Your task to perform on an android device: turn on showing notifications on the lock screen Image 0: 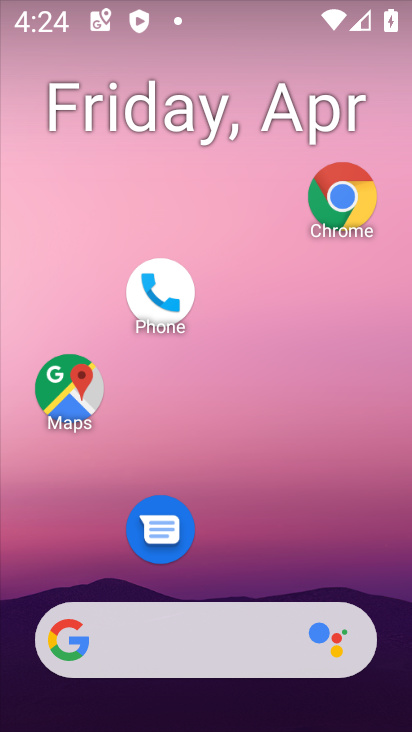
Step 0: drag from (249, 583) to (258, 67)
Your task to perform on an android device: turn on showing notifications on the lock screen Image 1: 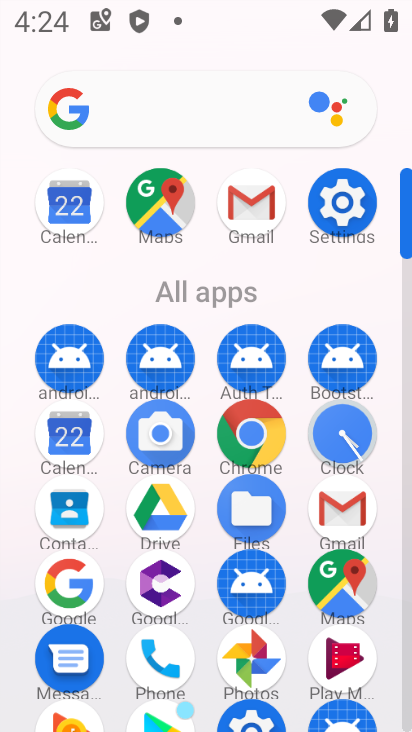
Step 1: click (343, 198)
Your task to perform on an android device: turn on showing notifications on the lock screen Image 2: 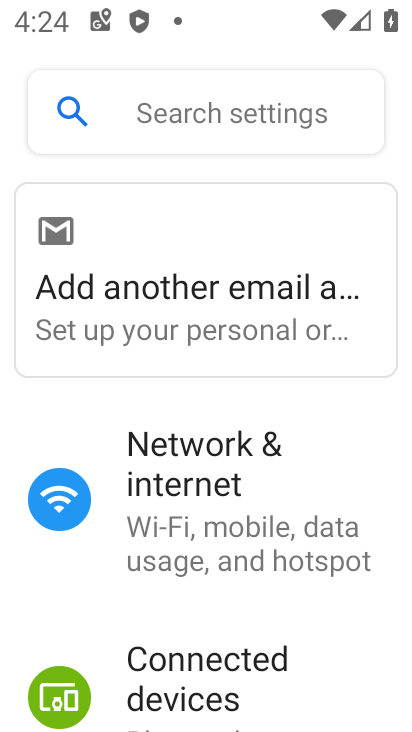
Step 2: drag from (166, 627) to (194, 204)
Your task to perform on an android device: turn on showing notifications on the lock screen Image 3: 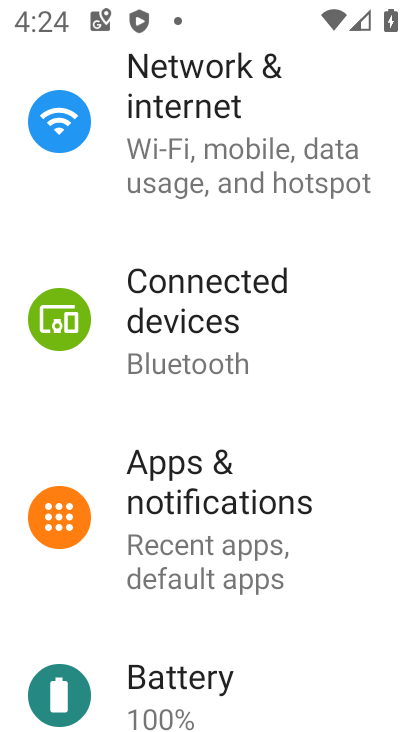
Step 3: click (107, 505)
Your task to perform on an android device: turn on showing notifications on the lock screen Image 4: 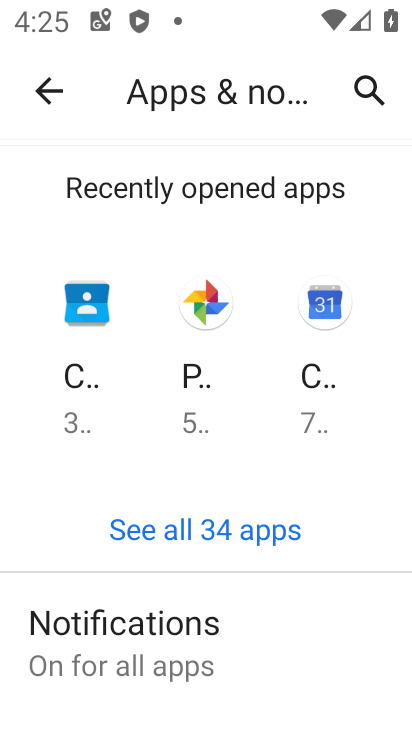
Step 4: click (236, 650)
Your task to perform on an android device: turn on showing notifications on the lock screen Image 5: 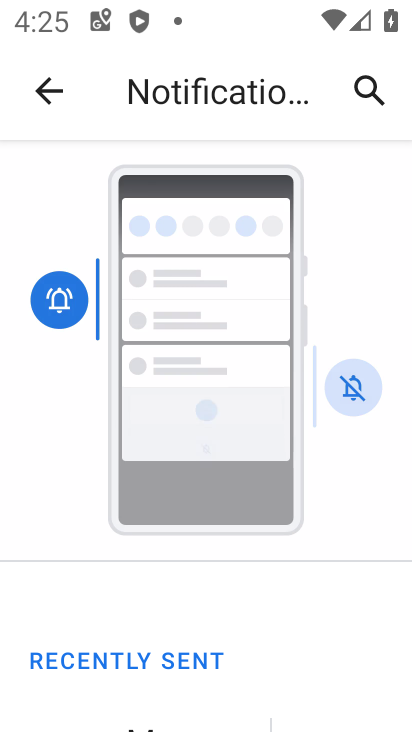
Step 5: drag from (240, 673) to (270, 298)
Your task to perform on an android device: turn on showing notifications on the lock screen Image 6: 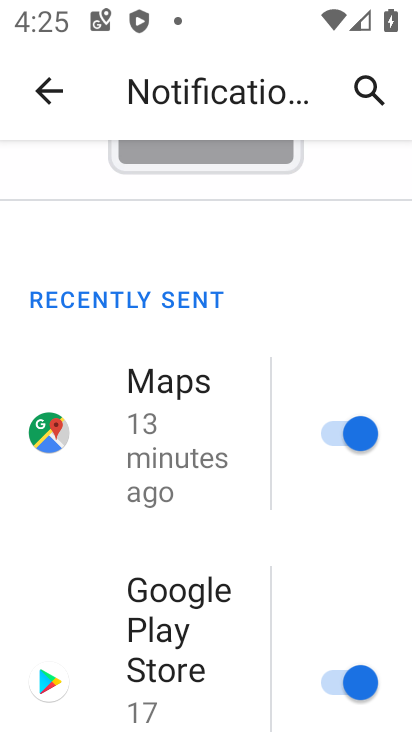
Step 6: drag from (235, 655) to (300, 167)
Your task to perform on an android device: turn on showing notifications on the lock screen Image 7: 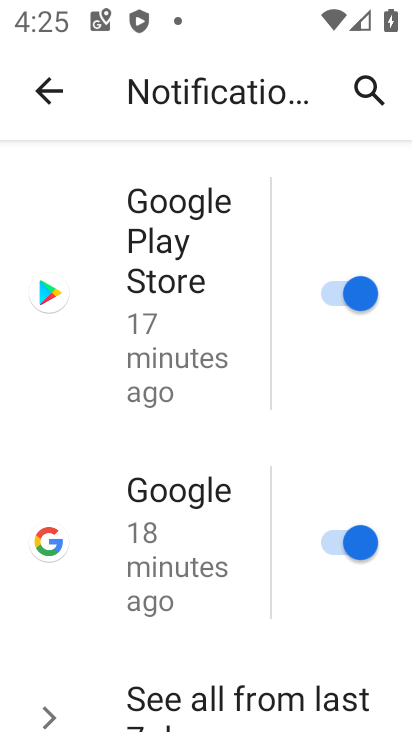
Step 7: drag from (230, 628) to (285, 239)
Your task to perform on an android device: turn on showing notifications on the lock screen Image 8: 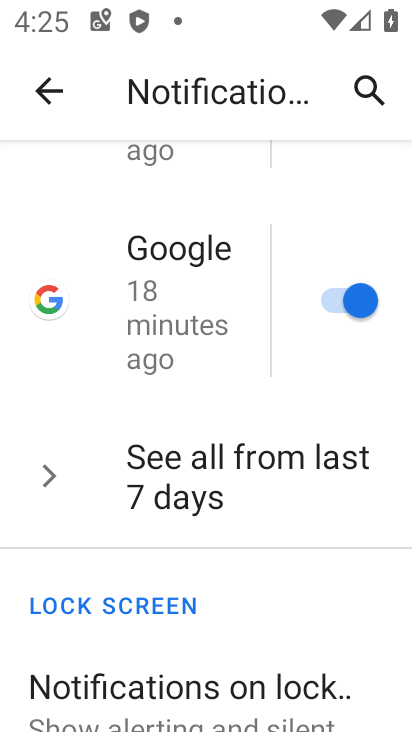
Step 8: click (260, 698)
Your task to perform on an android device: turn on showing notifications on the lock screen Image 9: 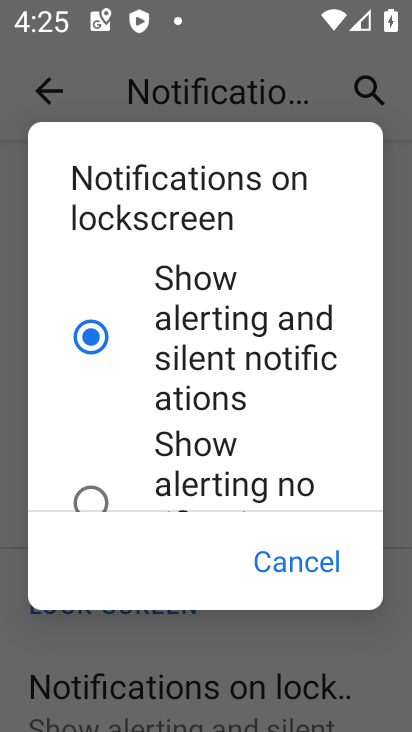
Step 9: click (93, 496)
Your task to perform on an android device: turn on showing notifications on the lock screen Image 10: 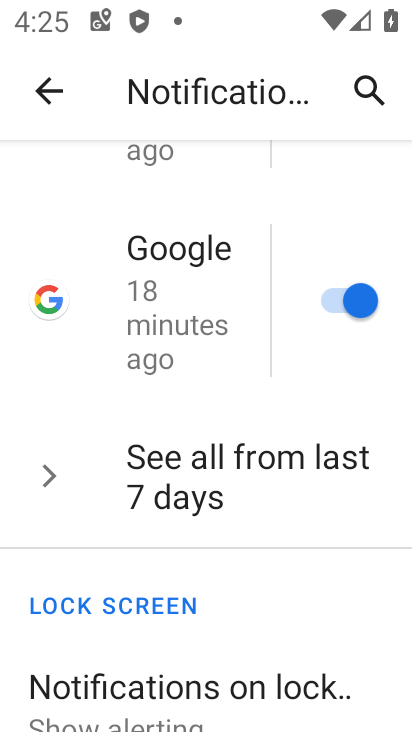
Step 10: task complete